Your task to perform on an android device: Open my contact list Image 0: 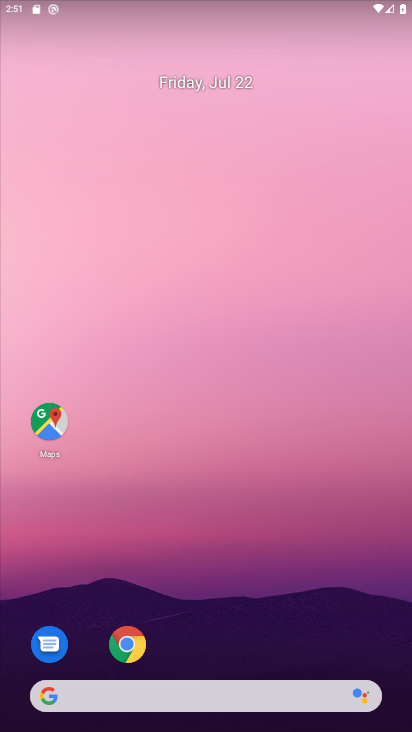
Step 0: drag from (208, 597) to (219, 162)
Your task to perform on an android device: Open my contact list Image 1: 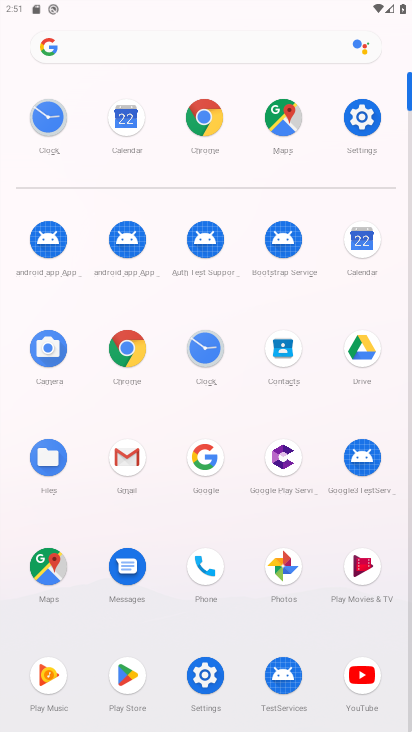
Step 1: click (282, 355)
Your task to perform on an android device: Open my contact list Image 2: 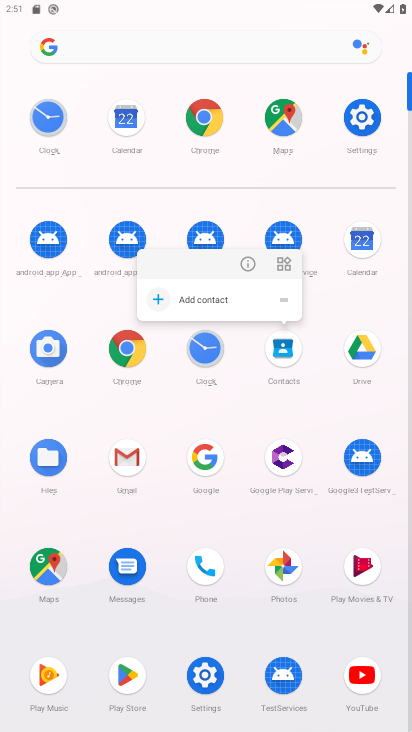
Step 2: click (280, 346)
Your task to perform on an android device: Open my contact list Image 3: 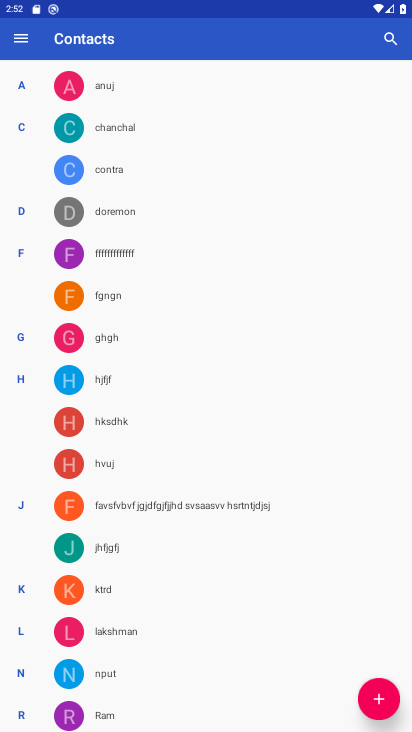
Step 3: task complete